Your task to perform on an android device: toggle wifi Image 0: 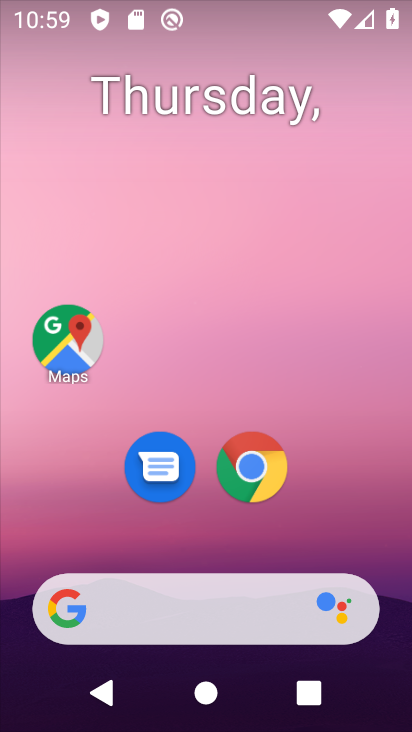
Step 0: drag from (107, 9) to (137, 506)
Your task to perform on an android device: toggle wifi Image 1: 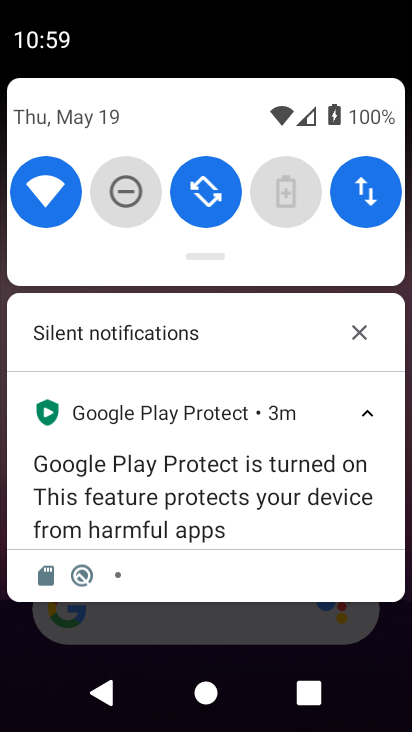
Step 1: click (52, 196)
Your task to perform on an android device: toggle wifi Image 2: 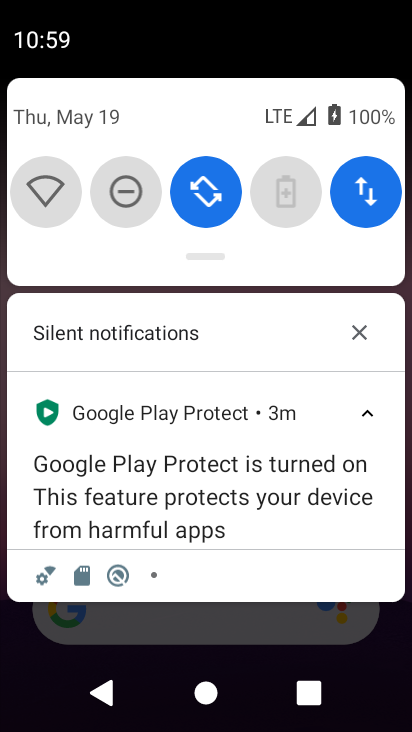
Step 2: task complete